Your task to perform on an android device: Open Chrome and go to the settings page Image 0: 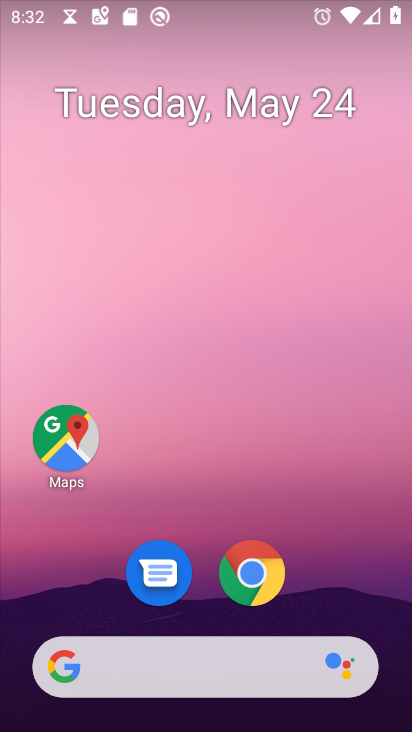
Step 0: drag from (317, 610) to (390, 0)
Your task to perform on an android device: Open Chrome and go to the settings page Image 1: 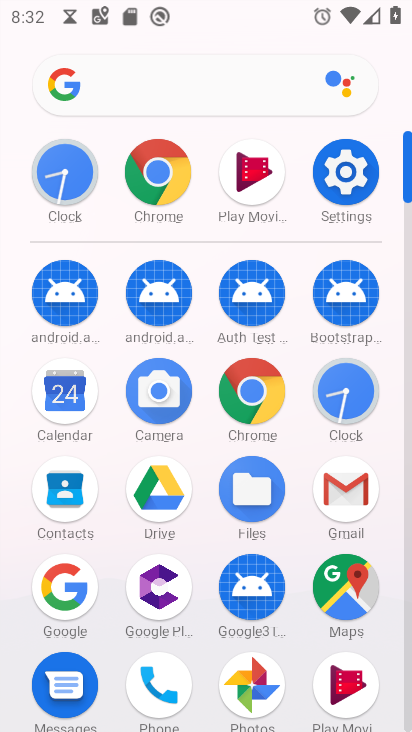
Step 1: click (159, 174)
Your task to perform on an android device: Open Chrome and go to the settings page Image 2: 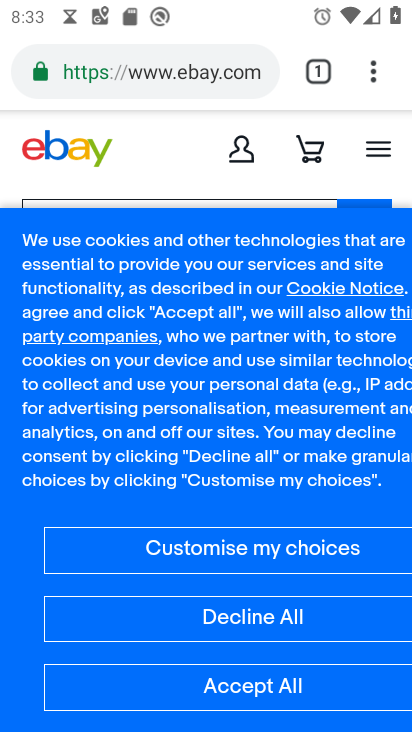
Step 2: task complete